Your task to perform on an android device: Open network settings Image 0: 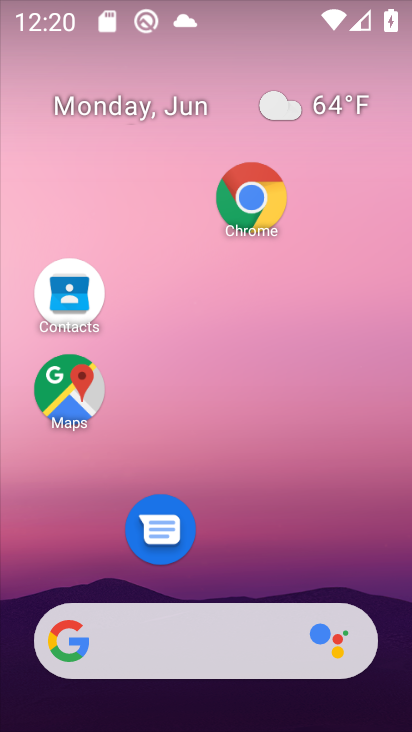
Step 0: drag from (252, 485) to (234, 19)
Your task to perform on an android device: Open network settings Image 1: 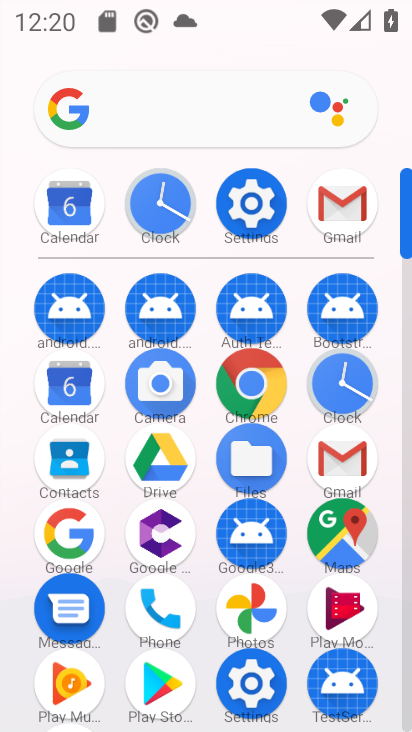
Step 1: click (249, 199)
Your task to perform on an android device: Open network settings Image 2: 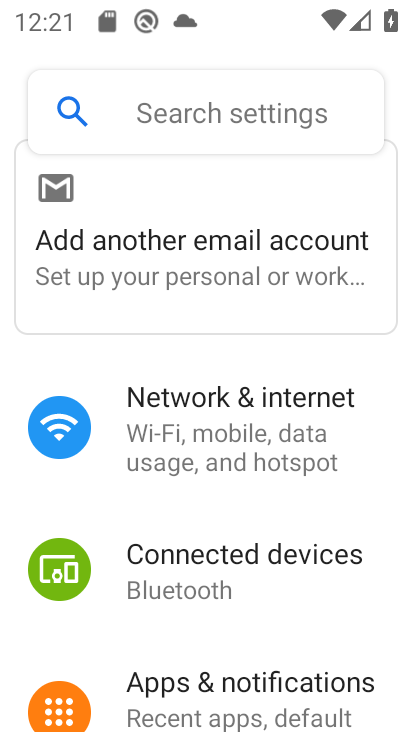
Step 2: click (207, 452)
Your task to perform on an android device: Open network settings Image 3: 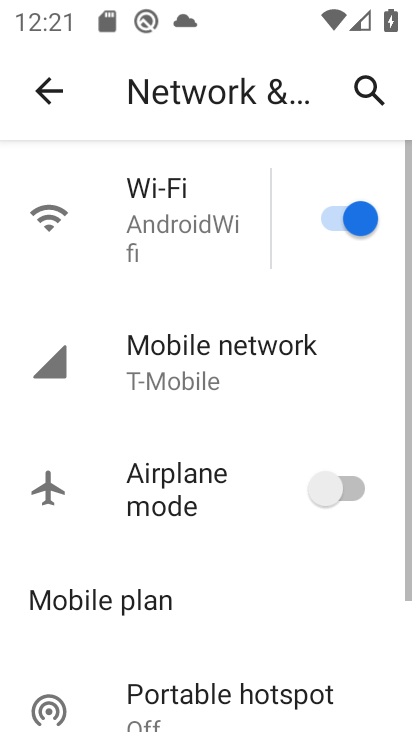
Step 3: click (183, 387)
Your task to perform on an android device: Open network settings Image 4: 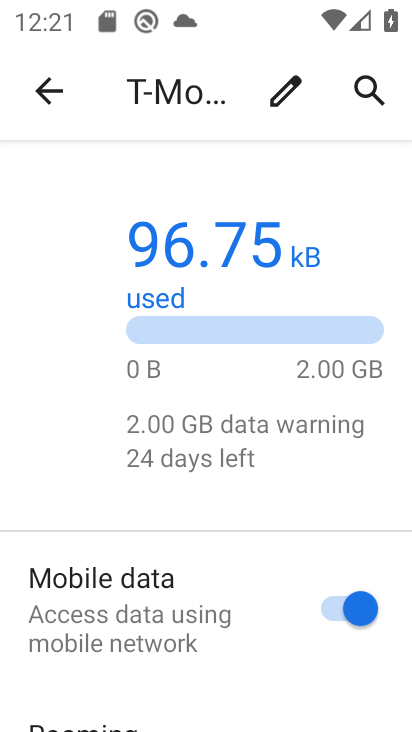
Step 4: task complete